Your task to perform on an android device: Go to privacy settings Image 0: 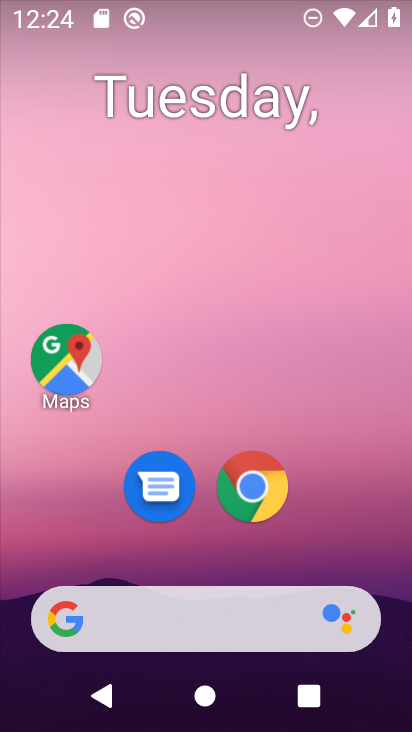
Step 0: drag from (213, 568) to (168, 180)
Your task to perform on an android device: Go to privacy settings Image 1: 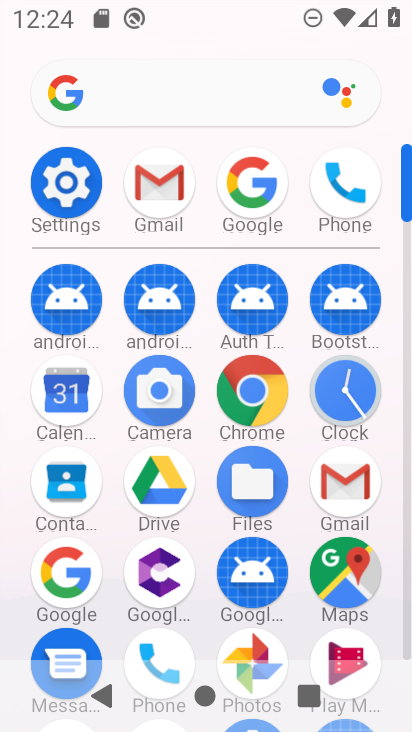
Step 1: drag from (210, 278) to (201, 103)
Your task to perform on an android device: Go to privacy settings Image 2: 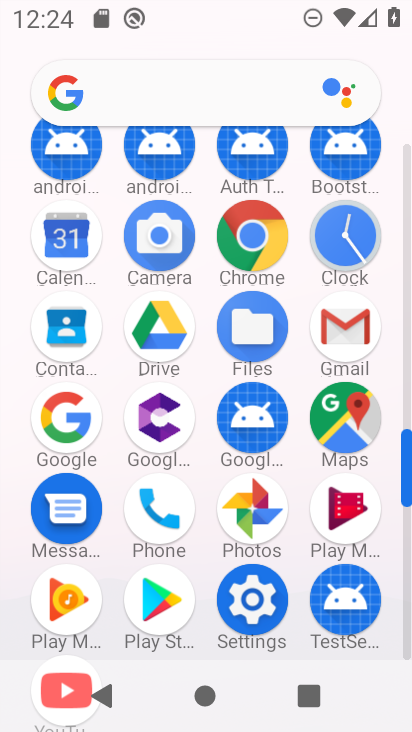
Step 2: click (245, 624)
Your task to perform on an android device: Go to privacy settings Image 3: 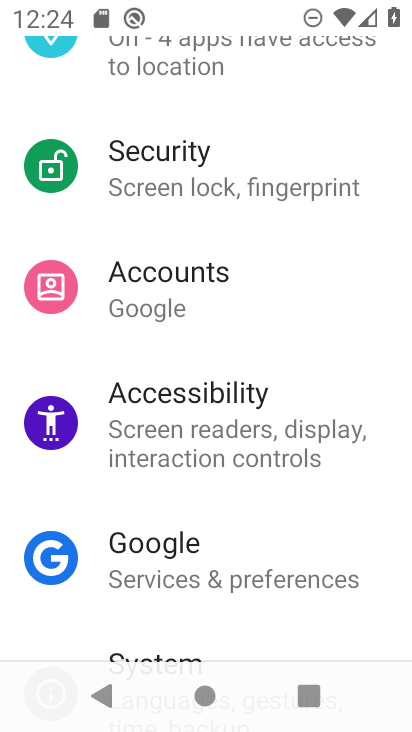
Step 3: drag from (181, 356) to (211, 542)
Your task to perform on an android device: Go to privacy settings Image 4: 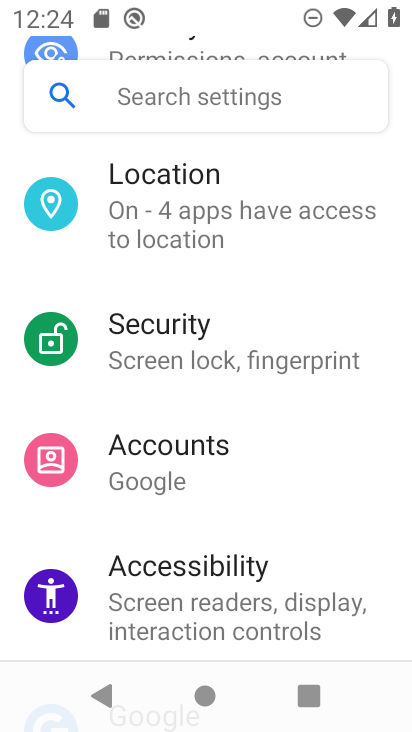
Step 4: drag from (193, 288) to (203, 493)
Your task to perform on an android device: Go to privacy settings Image 5: 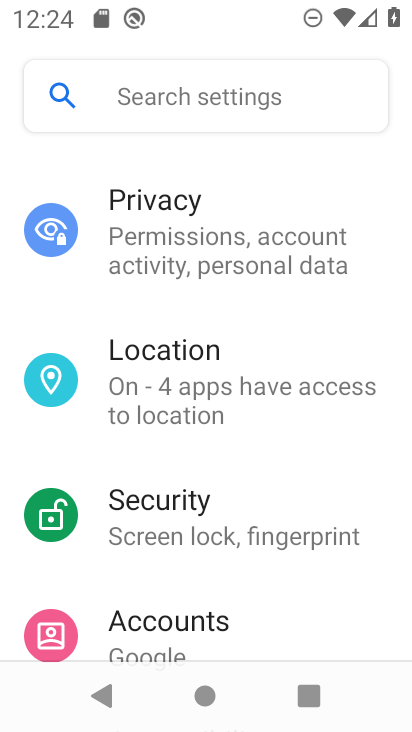
Step 5: click (191, 261)
Your task to perform on an android device: Go to privacy settings Image 6: 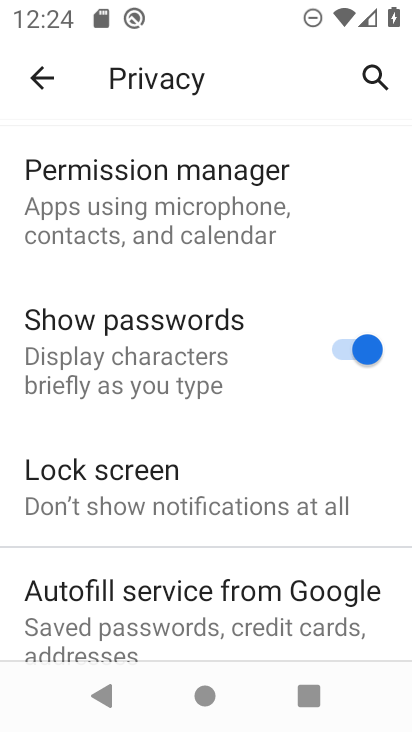
Step 6: task complete